Your task to perform on an android device: Go to accessibility settings Image 0: 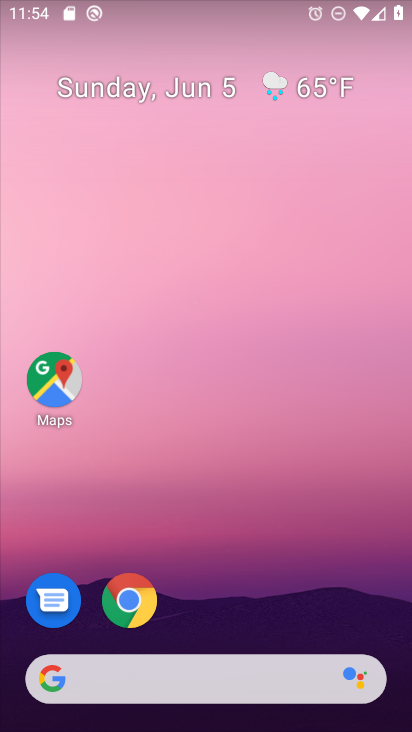
Step 0: drag from (345, 611) to (343, 147)
Your task to perform on an android device: Go to accessibility settings Image 1: 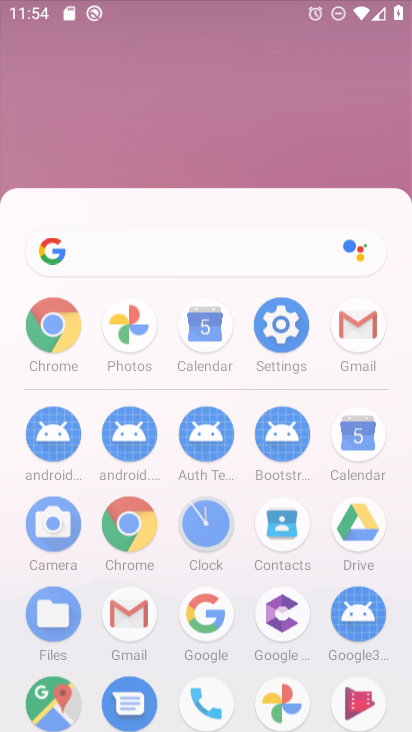
Step 1: click (288, 60)
Your task to perform on an android device: Go to accessibility settings Image 2: 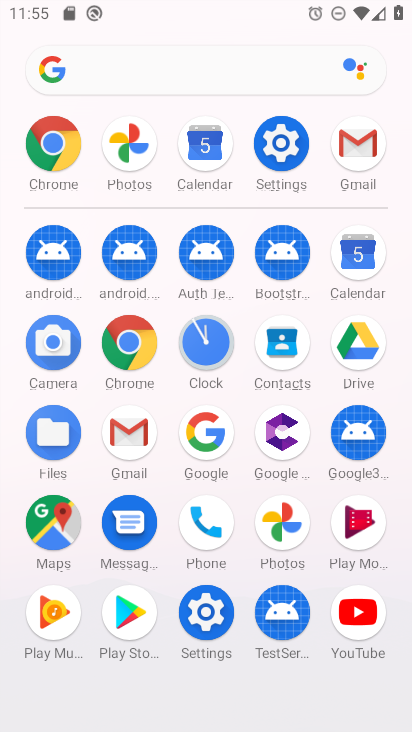
Step 2: click (195, 631)
Your task to perform on an android device: Go to accessibility settings Image 3: 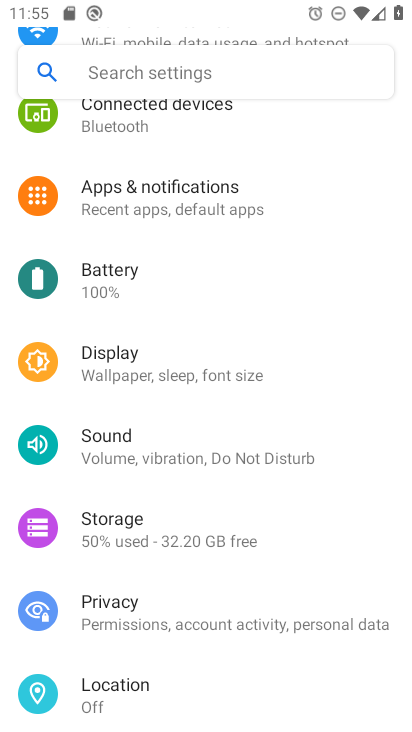
Step 3: drag from (171, 532) to (212, 107)
Your task to perform on an android device: Go to accessibility settings Image 4: 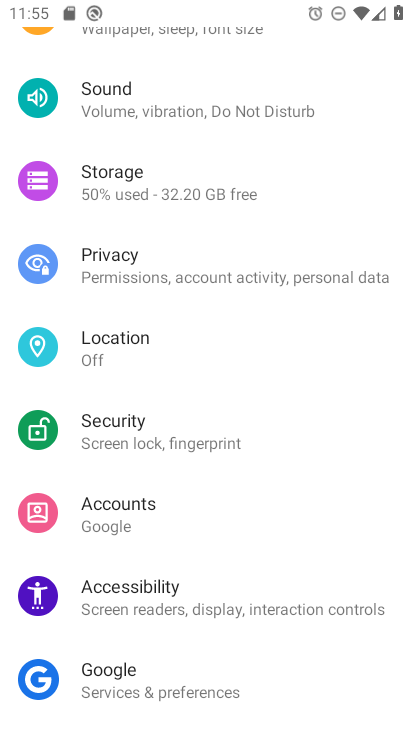
Step 4: click (157, 612)
Your task to perform on an android device: Go to accessibility settings Image 5: 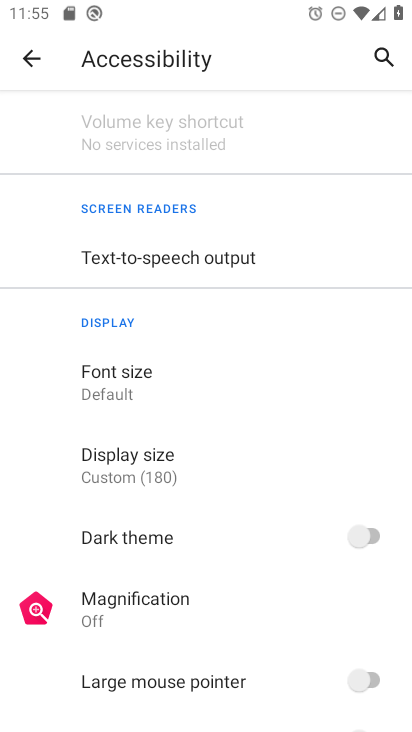
Step 5: task complete